Your task to perform on an android device: Go to Google maps Image 0: 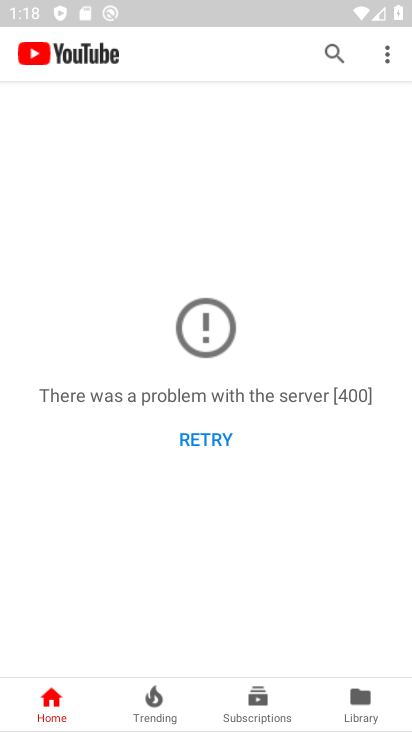
Step 0: press home button
Your task to perform on an android device: Go to Google maps Image 1: 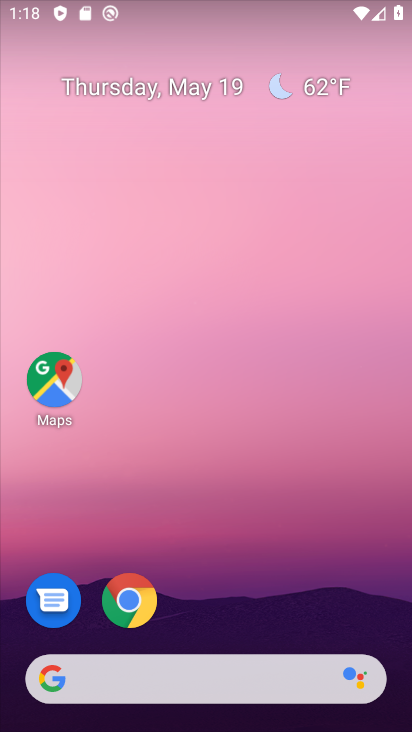
Step 1: click (47, 390)
Your task to perform on an android device: Go to Google maps Image 2: 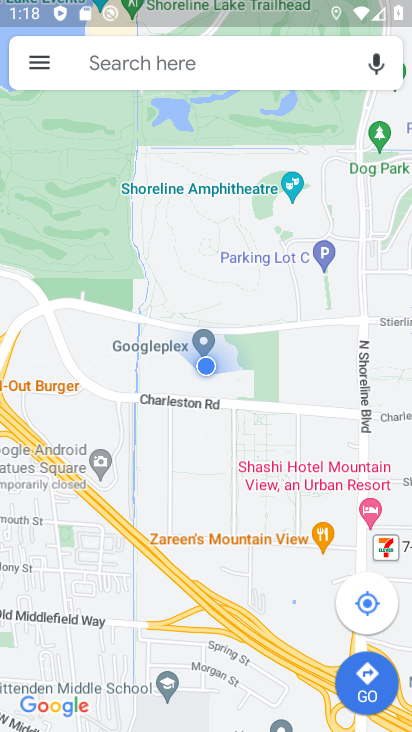
Step 2: task complete